Your task to perform on an android device: open device folders in google photos Image 0: 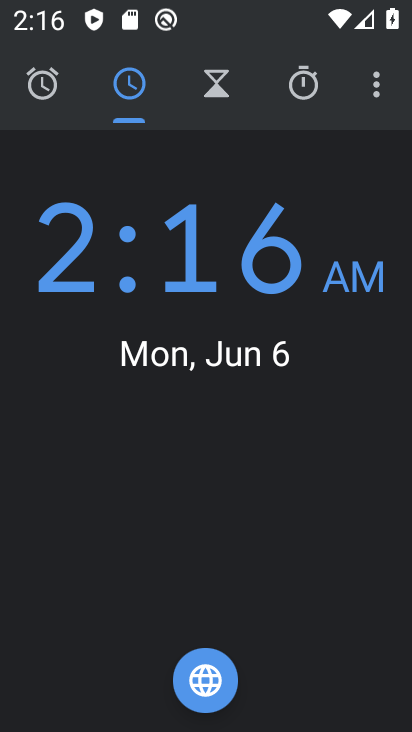
Step 0: press home button
Your task to perform on an android device: open device folders in google photos Image 1: 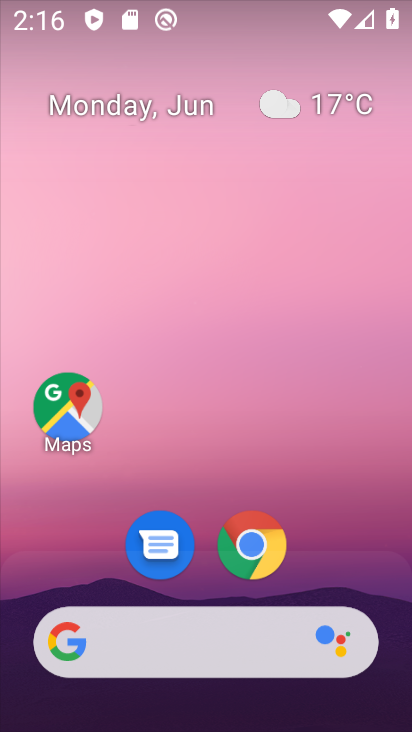
Step 1: drag from (347, 566) to (338, 147)
Your task to perform on an android device: open device folders in google photos Image 2: 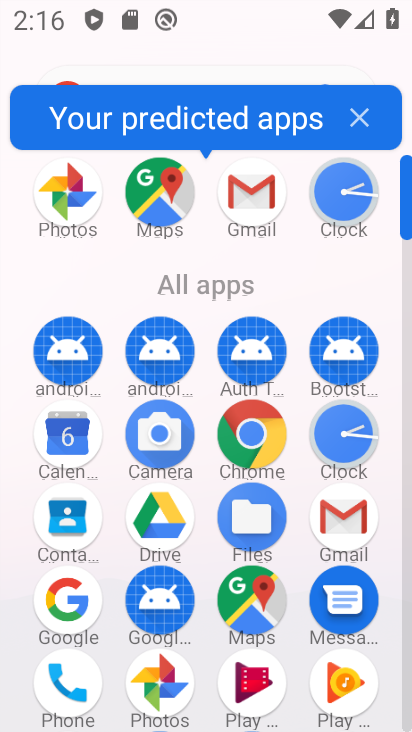
Step 2: click (165, 696)
Your task to perform on an android device: open device folders in google photos Image 3: 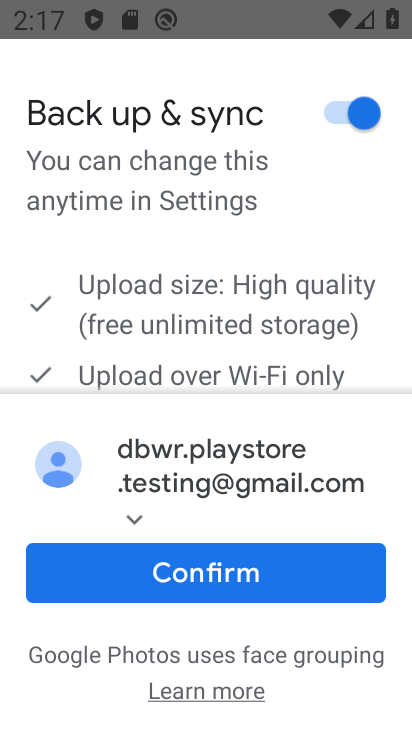
Step 3: press home button
Your task to perform on an android device: open device folders in google photos Image 4: 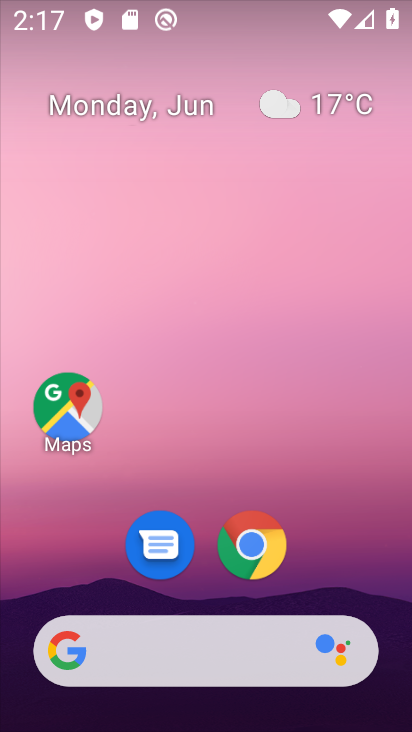
Step 4: drag from (358, 578) to (397, 216)
Your task to perform on an android device: open device folders in google photos Image 5: 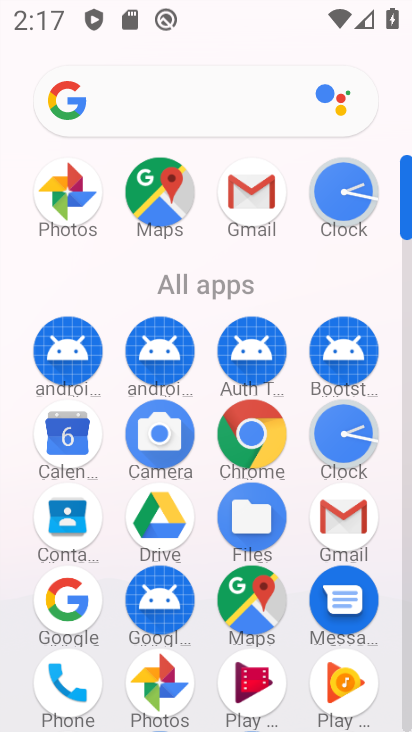
Step 5: click (145, 691)
Your task to perform on an android device: open device folders in google photos Image 6: 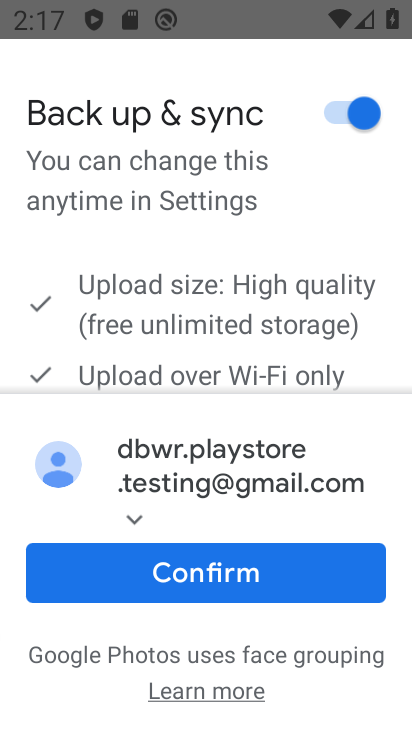
Step 6: click (190, 587)
Your task to perform on an android device: open device folders in google photos Image 7: 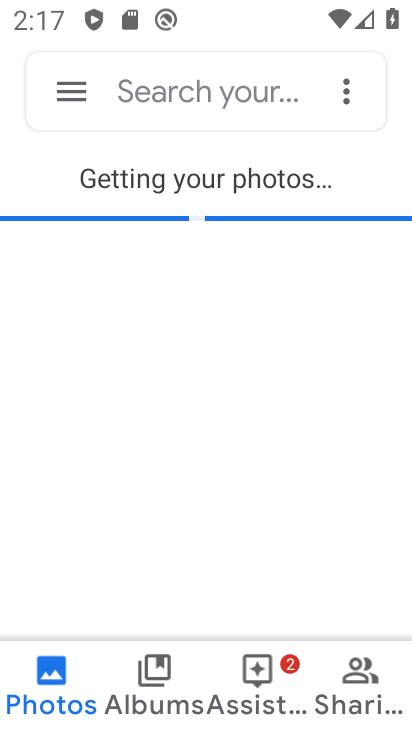
Step 7: click (72, 93)
Your task to perform on an android device: open device folders in google photos Image 8: 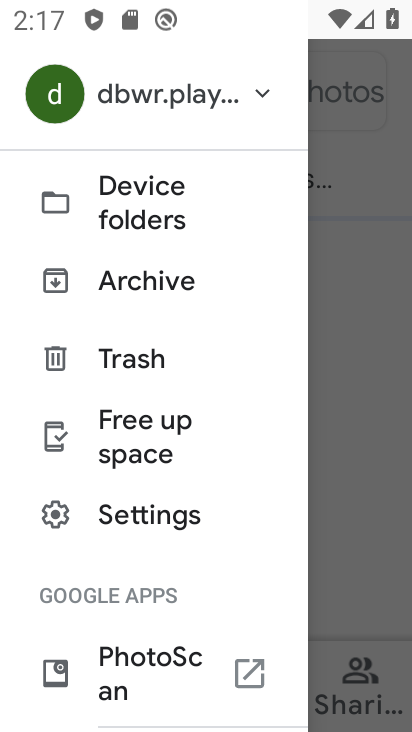
Step 8: click (202, 220)
Your task to perform on an android device: open device folders in google photos Image 9: 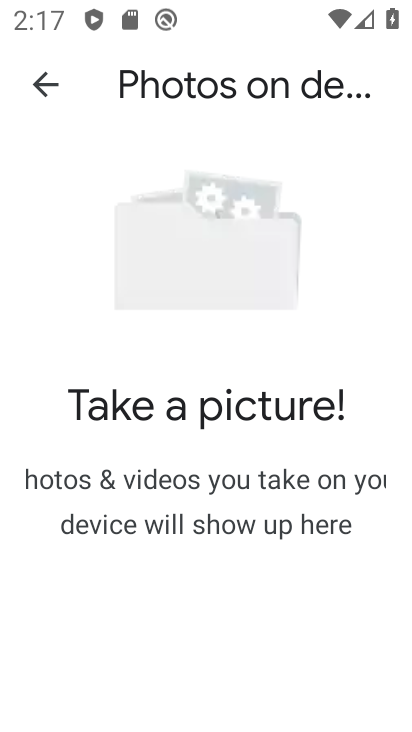
Step 9: task complete